Your task to perform on an android device: open app "Viber Messenger" (install if not already installed) and enter user name: "blameless@icloud.com" and password: "Yoknapatawpha" Image 0: 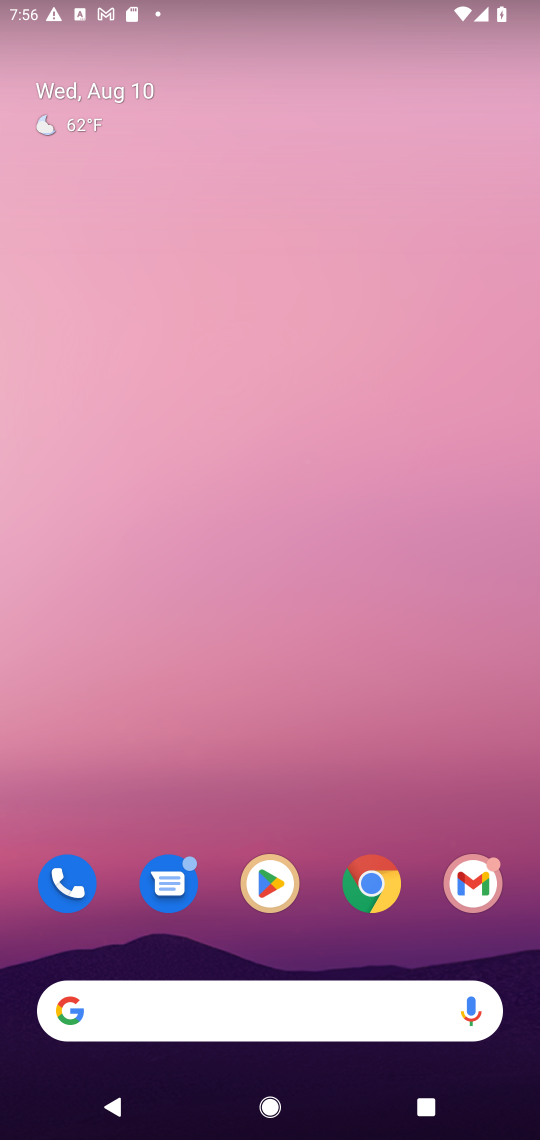
Step 0: click (268, 876)
Your task to perform on an android device: open app "Viber Messenger" (install if not already installed) and enter user name: "blameless@icloud.com" and password: "Yoknapatawpha" Image 1: 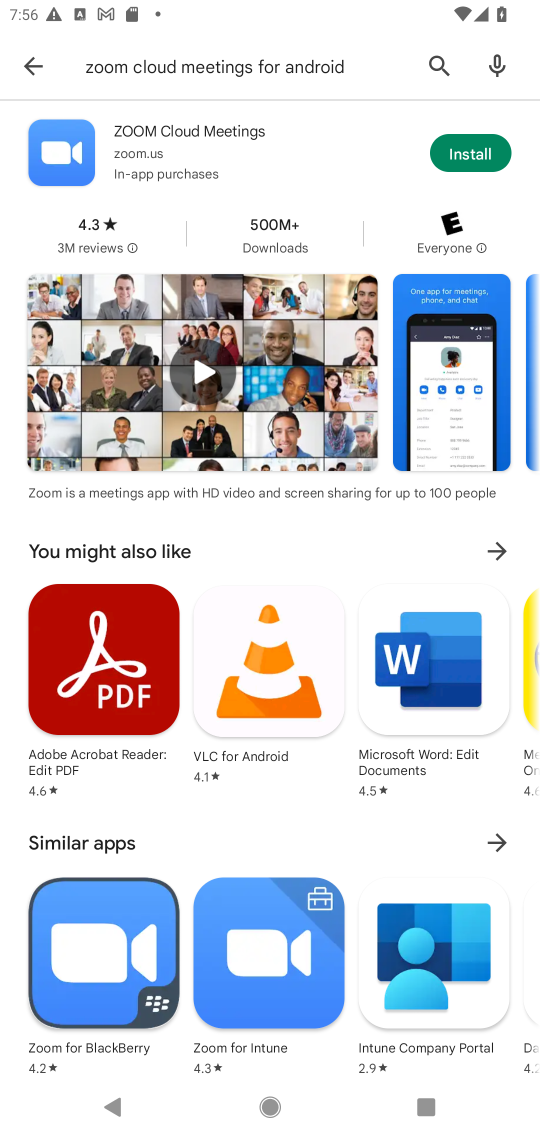
Step 1: click (429, 70)
Your task to perform on an android device: open app "Viber Messenger" (install if not already installed) and enter user name: "blameless@icloud.com" and password: "Yoknapatawpha" Image 2: 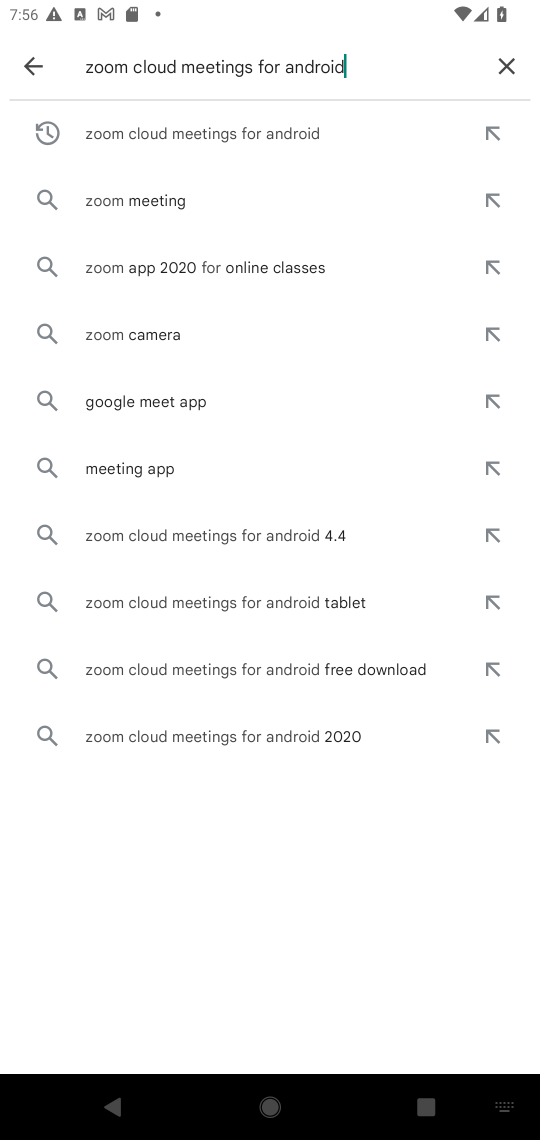
Step 2: click (499, 63)
Your task to perform on an android device: open app "Viber Messenger" (install if not already installed) and enter user name: "blameless@icloud.com" and password: "Yoknapatawpha" Image 3: 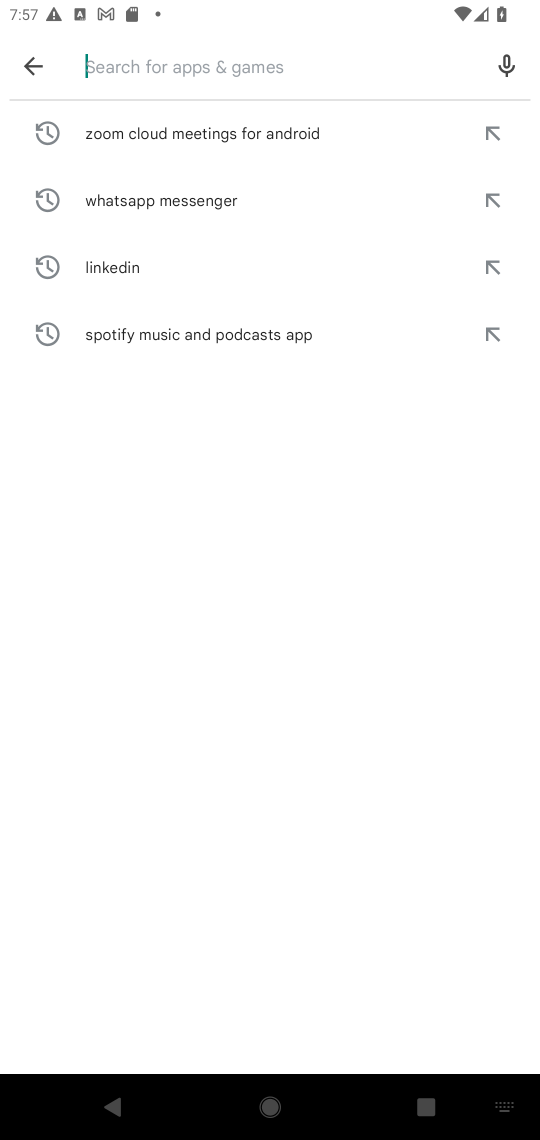
Step 3: type "Viber Messenger"
Your task to perform on an android device: open app "Viber Messenger" (install if not already installed) and enter user name: "blameless@icloud.com" and password: "Yoknapatawpha" Image 4: 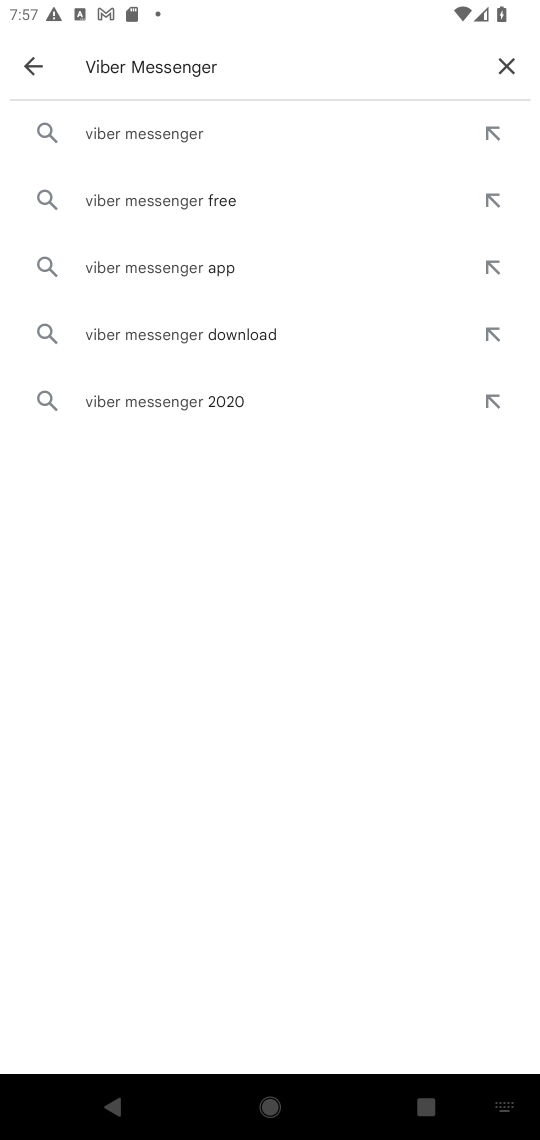
Step 4: click (199, 127)
Your task to perform on an android device: open app "Viber Messenger" (install if not already installed) and enter user name: "blameless@icloud.com" and password: "Yoknapatawpha" Image 5: 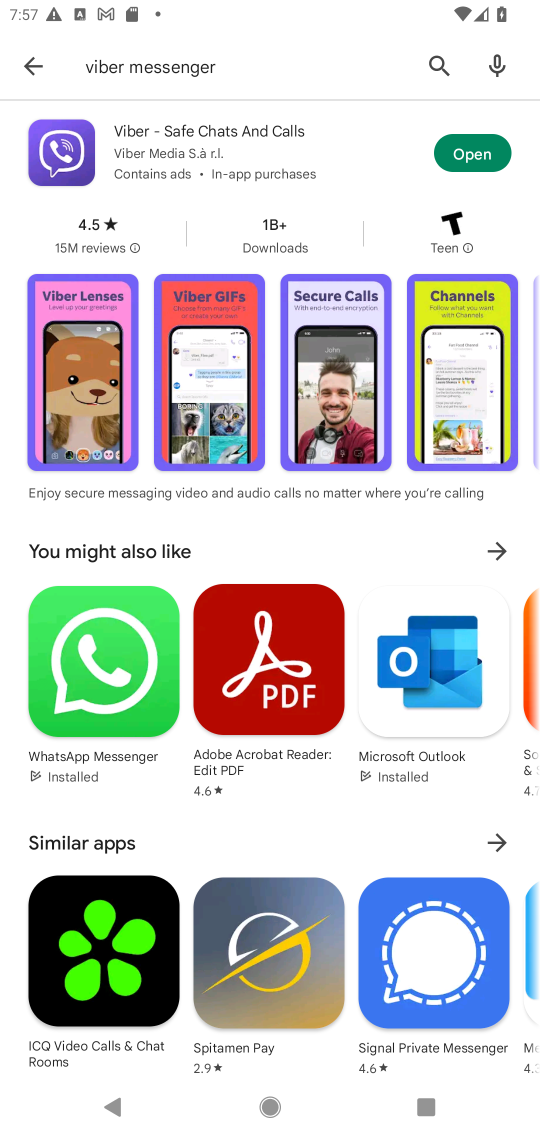
Step 5: click (478, 154)
Your task to perform on an android device: open app "Viber Messenger" (install if not already installed) and enter user name: "blameless@icloud.com" and password: "Yoknapatawpha" Image 6: 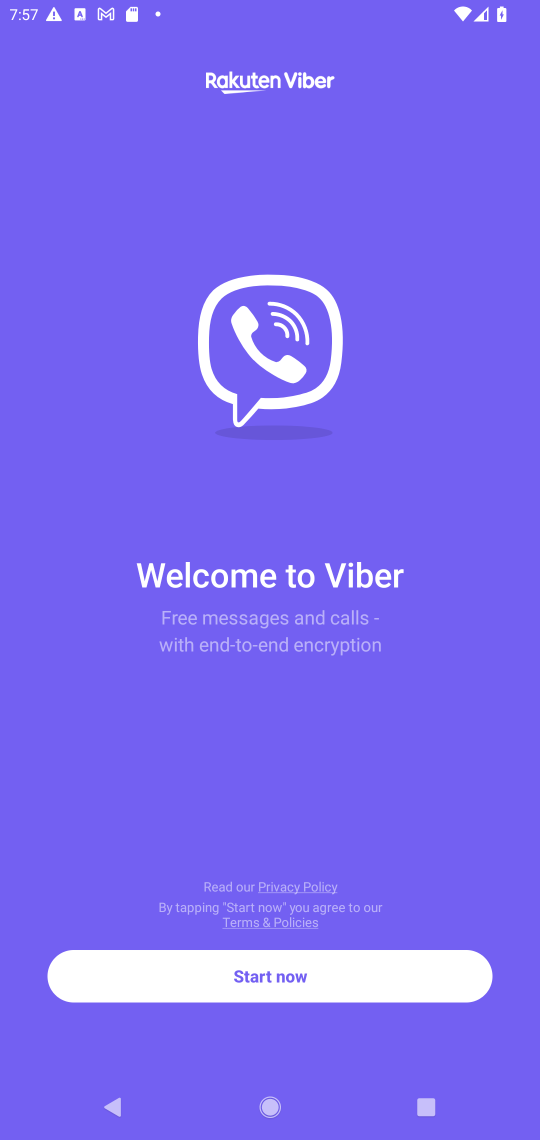
Step 6: task complete